Your task to perform on an android device: all mails in gmail Image 0: 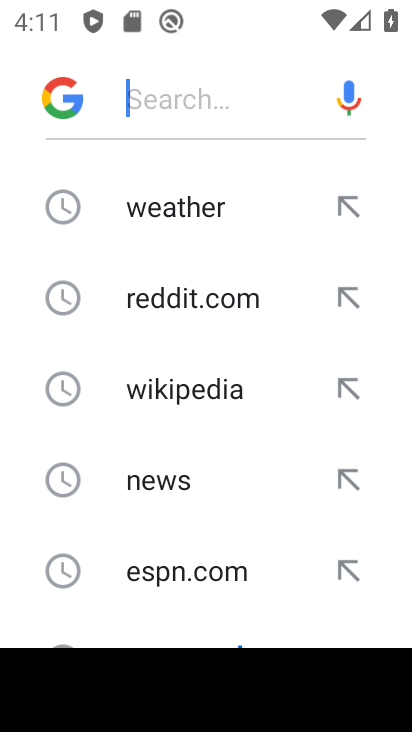
Step 0: press home button
Your task to perform on an android device: all mails in gmail Image 1: 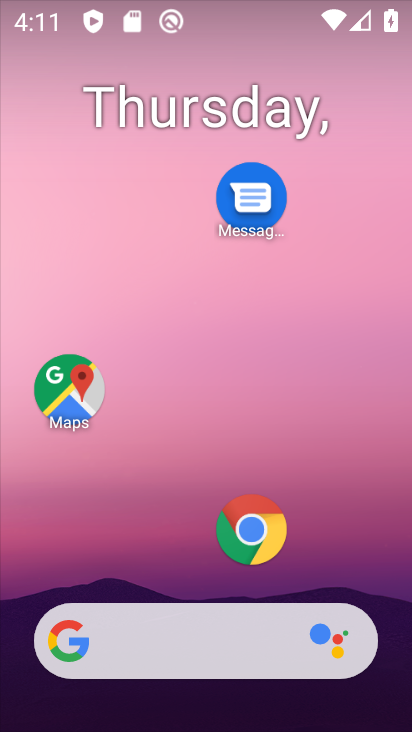
Step 1: drag from (145, 566) to (259, 76)
Your task to perform on an android device: all mails in gmail Image 2: 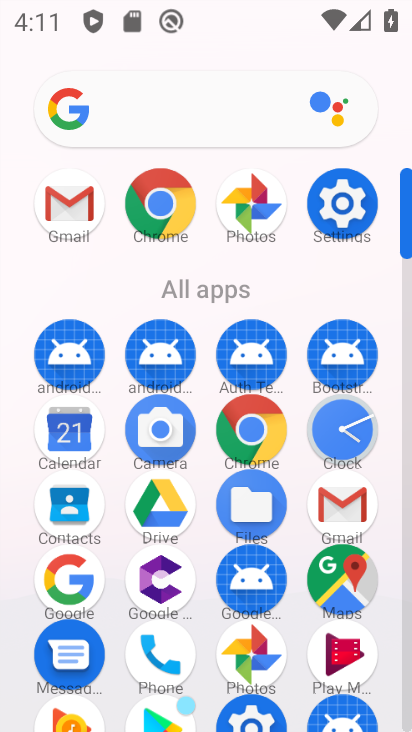
Step 2: click (80, 199)
Your task to perform on an android device: all mails in gmail Image 3: 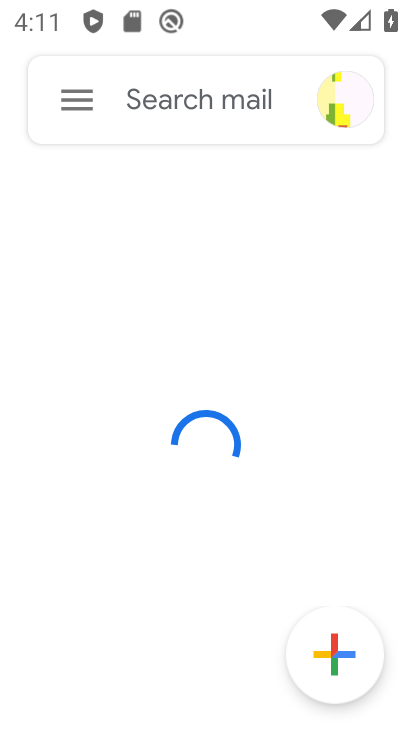
Step 3: click (75, 106)
Your task to perform on an android device: all mails in gmail Image 4: 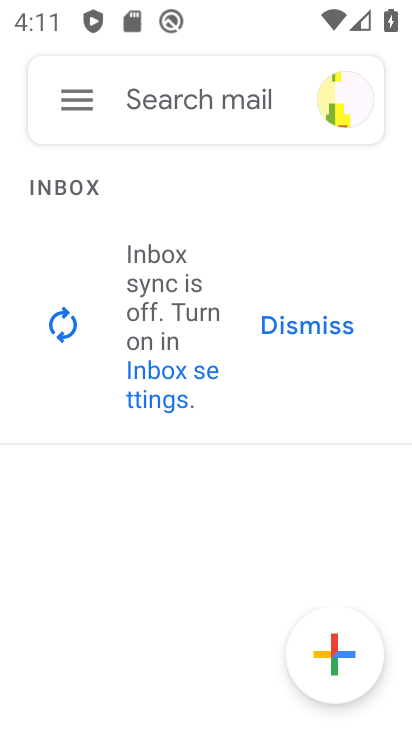
Step 4: click (67, 101)
Your task to perform on an android device: all mails in gmail Image 5: 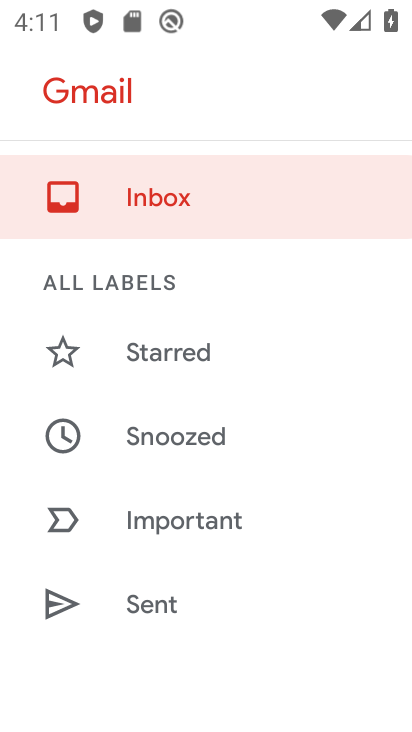
Step 5: drag from (216, 561) to (315, 257)
Your task to perform on an android device: all mails in gmail Image 6: 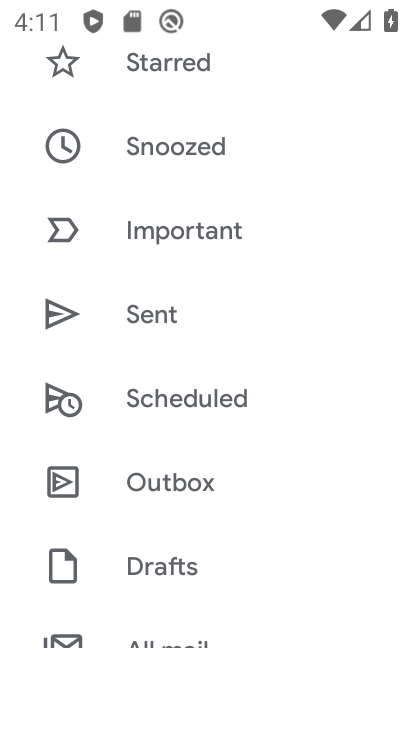
Step 6: drag from (222, 562) to (308, 212)
Your task to perform on an android device: all mails in gmail Image 7: 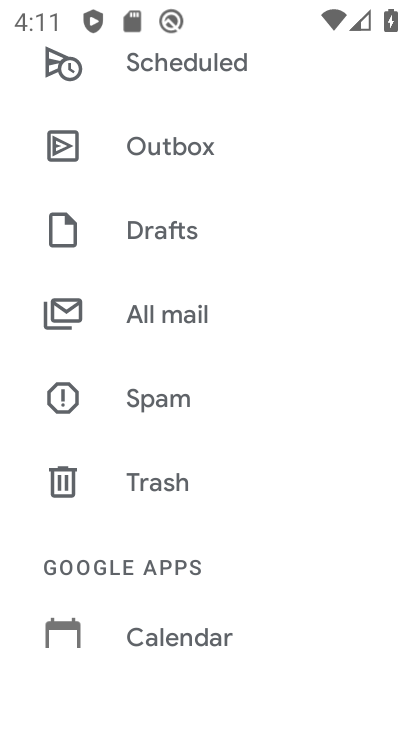
Step 7: click (169, 313)
Your task to perform on an android device: all mails in gmail Image 8: 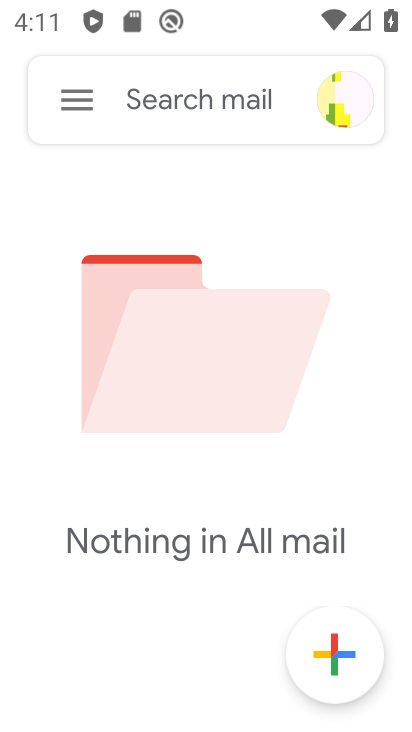
Step 8: task complete